Your task to perform on an android device: turn off location history Image 0: 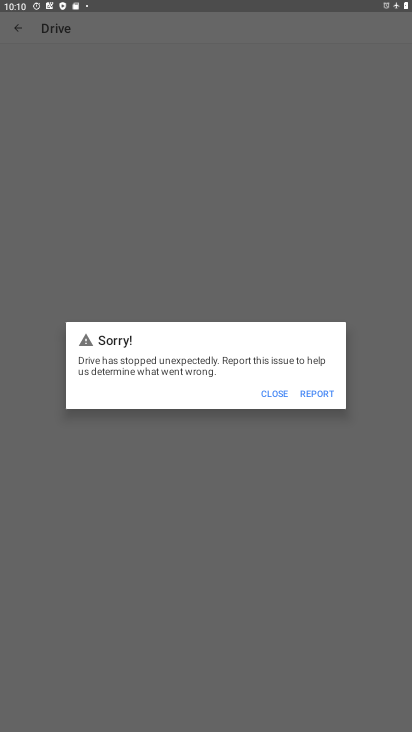
Step 0: press home button
Your task to perform on an android device: turn off location history Image 1: 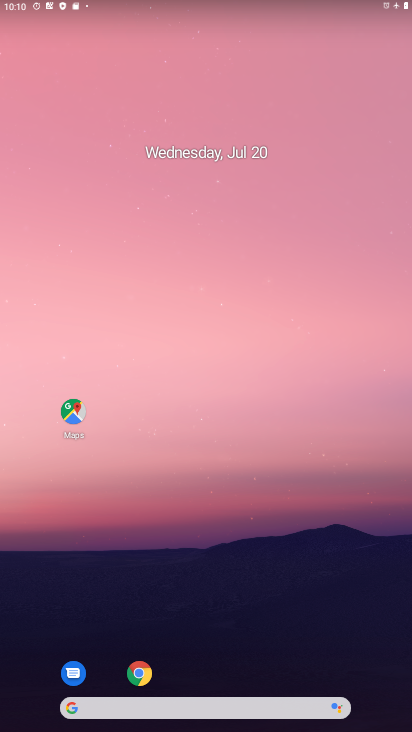
Step 1: drag from (243, 705) to (233, 265)
Your task to perform on an android device: turn off location history Image 2: 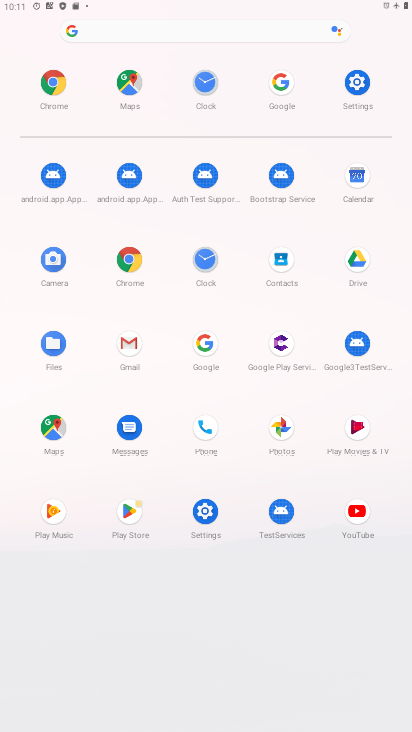
Step 2: click (351, 82)
Your task to perform on an android device: turn off location history Image 3: 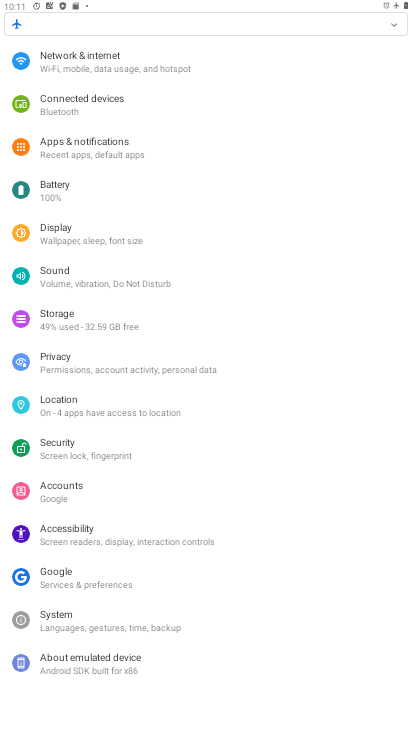
Step 3: click (62, 403)
Your task to perform on an android device: turn off location history Image 4: 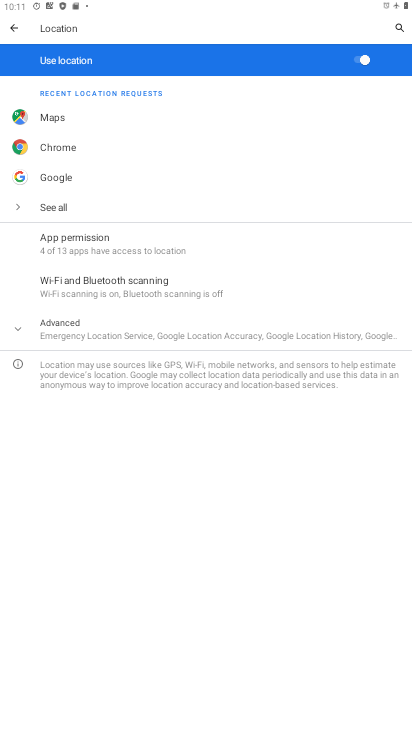
Step 4: click (55, 327)
Your task to perform on an android device: turn off location history Image 5: 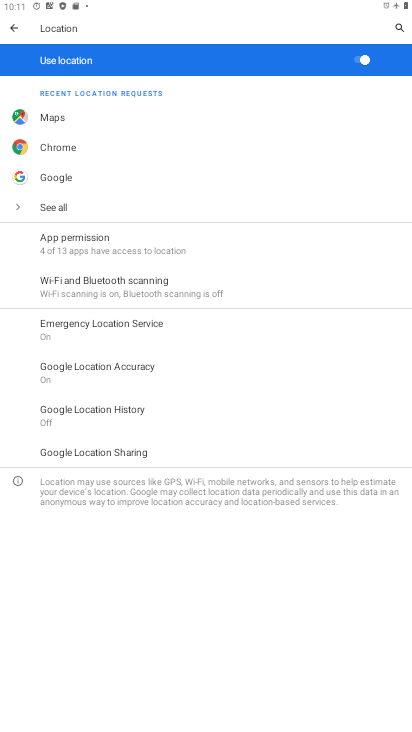
Step 5: click (82, 411)
Your task to perform on an android device: turn off location history Image 6: 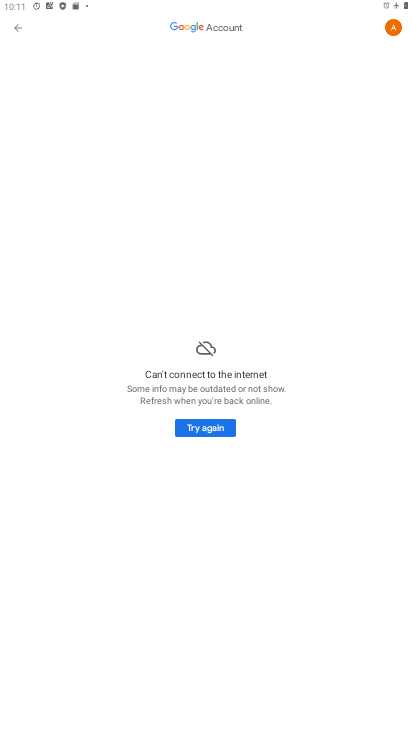
Step 6: click (206, 427)
Your task to perform on an android device: turn off location history Image 7: 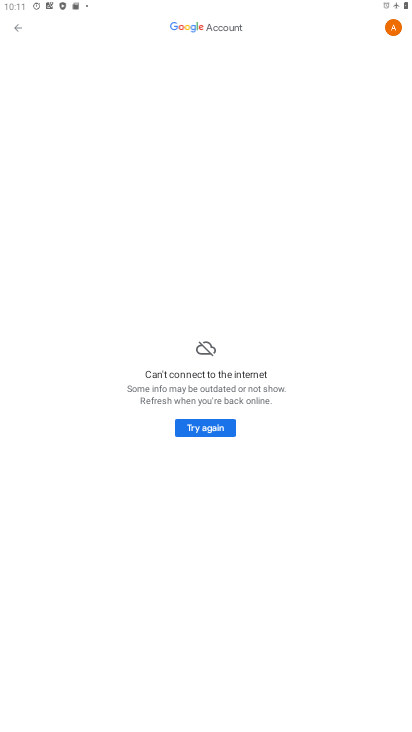
Step 7: task complete